Your task to perform on an android device: turn on notifications settings in the gmail app Image 0: 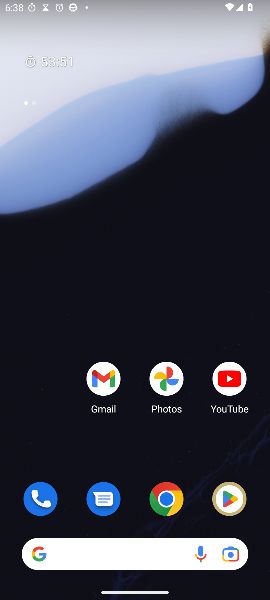
Step 0: drag from (54, 511) to (83, 31)
Your task to perform on an android device: turn on notifications settings in the gmail app Image 1: 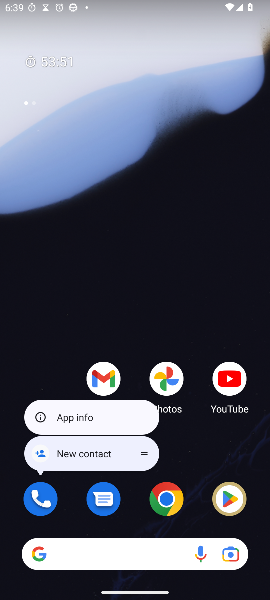
Step 1: click (188, 457)
Your task to perform on an android device: turn on notifications settings in the gmail app Image 2: 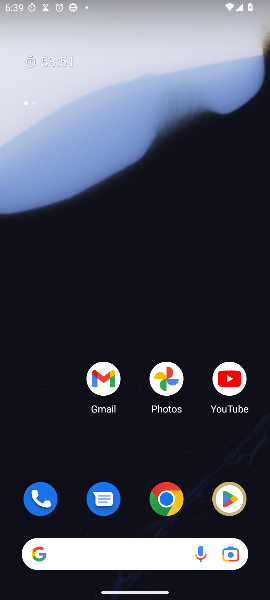
Step 2: drag from (29, 493) to (37, 20)
Your task to perform on an android device: turn on notifications settings in the gmail app Image 3: 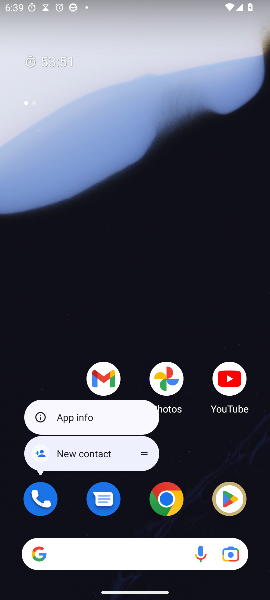
Step 3: click (42, 273)
Your task to perform on an android device: turn on notifications settings in the gmail app Image 4: 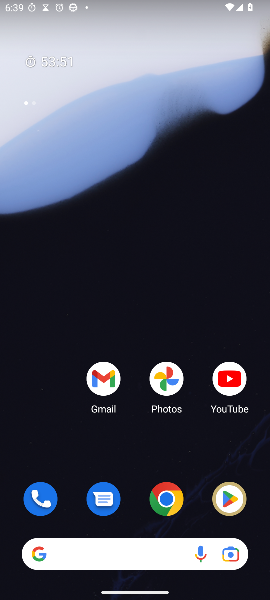
Step 4: drag from (188, 574) to (166, 70)
Your task to perform on an android device: turn on notifications settings in the gmail app Image 5: 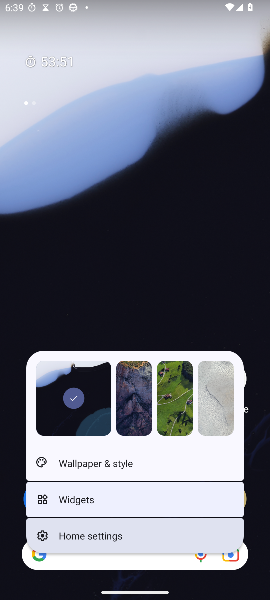
Step 5: click (61, 228)
Your task to perform on an android device: turn on notifications settings in the gmail app Image 6: 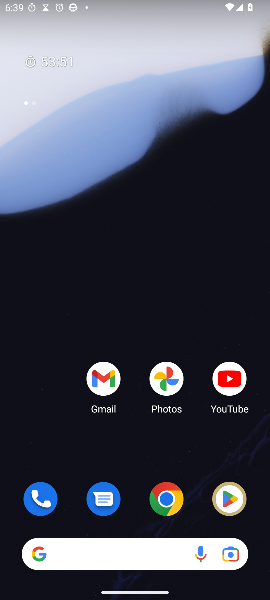
Step 6: drag from (136, 493) to (120, 2)
Your task to perform on an android device: turn on notifications settings in the gmail app Image 7: 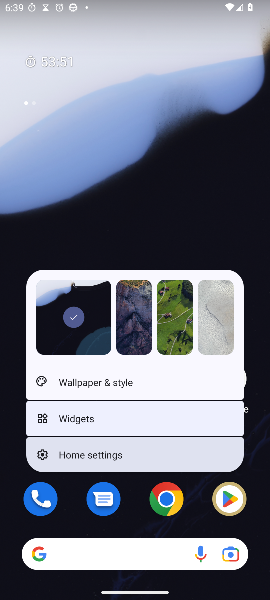
Step 7: drag from (193, 536) to (169, 46)
Your task to perform on an android device: turn on notifications settings in the gmail app Image 8: 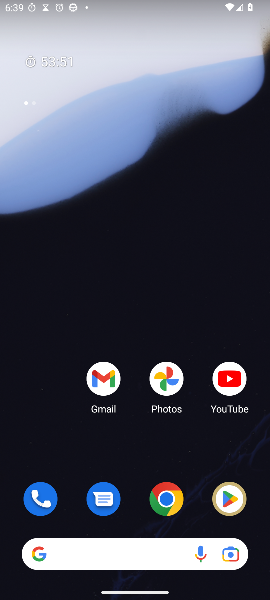
Step 8: drag from (131, 458) to (128, 78)
Your task to perform on an android device: turn on notifications settings in the gmail app Image 9: 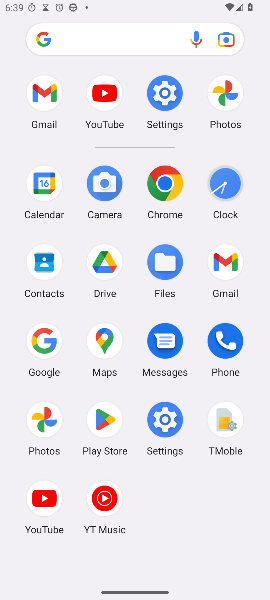
Step 9: click (44, 94)
Your task to perform on an android device: turn on notifications settings in the gmail app Image 10: 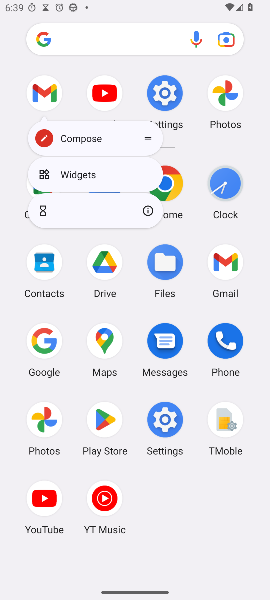
Step 10: click (42, 94)
Your task to perform on an android device: turn on notifications settings in the gmail app Image 11: 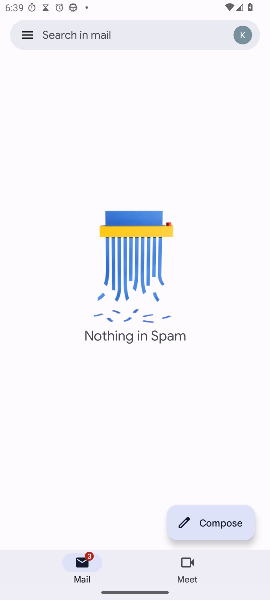
Step 11: click (15, 47)
Your task to perform on an android device: turn on notifications settings in the gmail app Image 12: 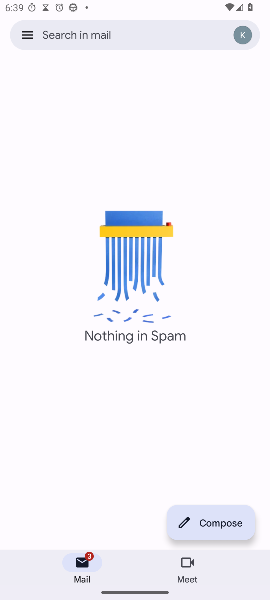
Step 12: click (28, 32)
Your task to perform on an android device: turn on notifications settings in the gmail app Image 13: 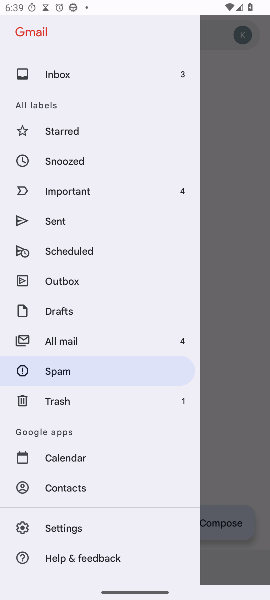
Step 13: click (73, 534)
Your task to perform on an android device: turn on notifications settings in the gmail app Image 14: 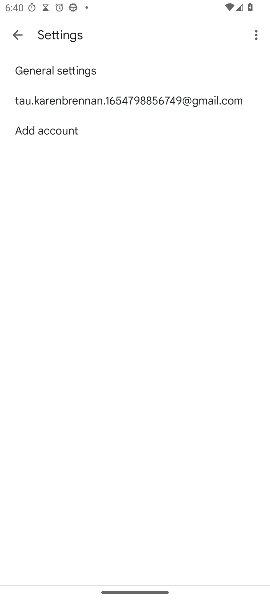
Step 14: click (40, 111)
Your task to perform on an android device: turn on notifications settings in the gmail app Image 15: 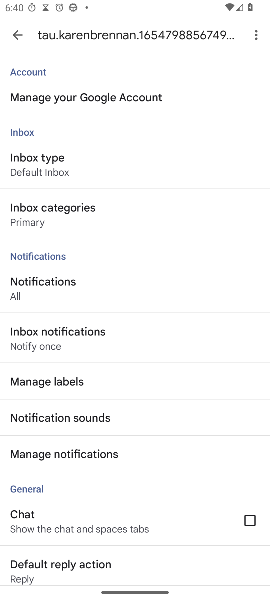
Step 15: click (42, 296)
Your task to perform on an android device: turn on notifications settings in the gmail app Image 16: 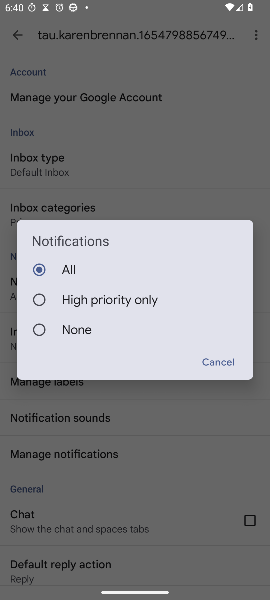
Step 16: task complete